Your task to perform on an android device: Open the Play Movies app and select the watchlist tab. Image 0: 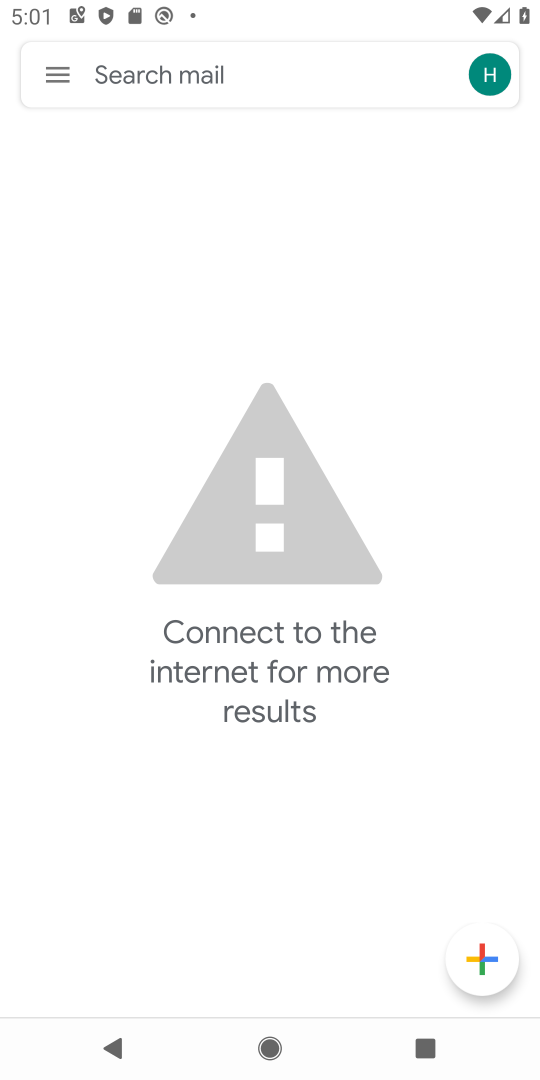
Step 0: press home button
Your task to perform on an android device: Open the Play Movies app and select the watchlist tab. Image 1: 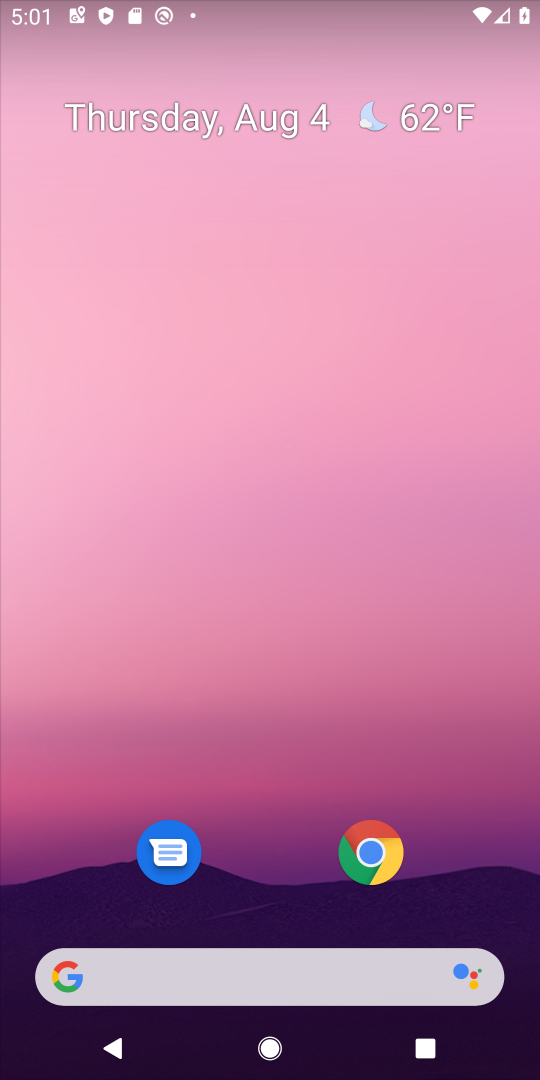
Step 1: drag from (244, 865) to (252, 218)
Your task to perform on an android device: Open the Play Movies app and select the watchlist tab. Image 2: 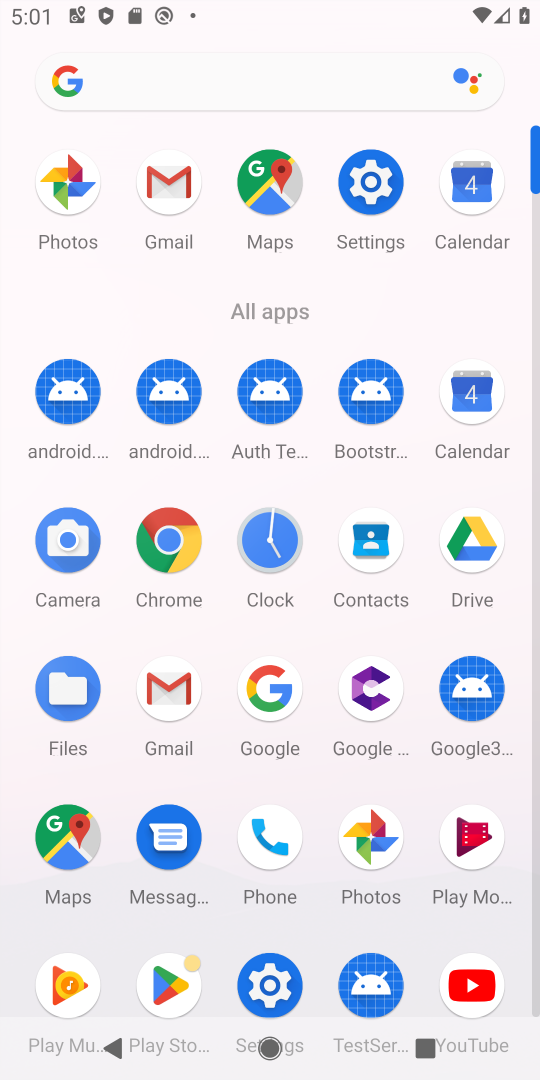
Step 2: click (473, 833)
Your task to perform on an android device: Open the Play Movies app and select the watchlist tab. Image 3: 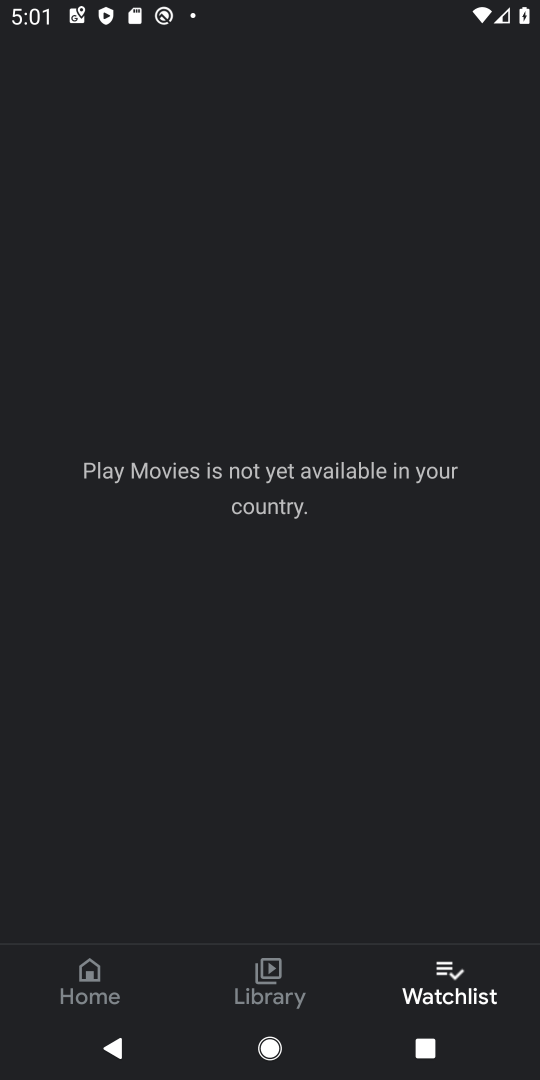
Step 3: task complete